Your task to perform on an android device: What's on my calendar tomorrow? Image 0: 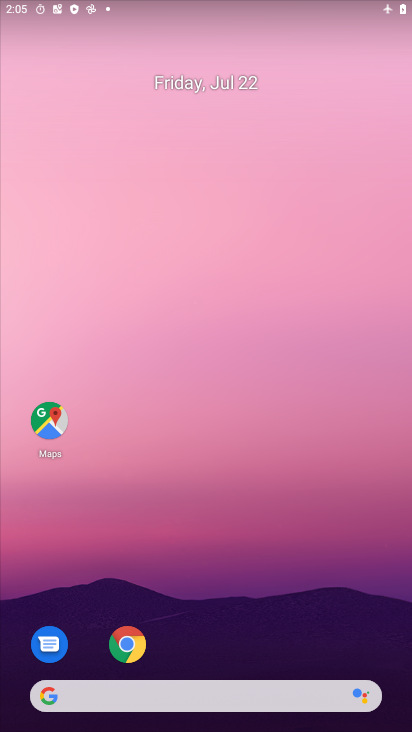
Step 0: drag from (231, 562) to (233, 165)
Your task to perform on an android device: What's on my calendar tomorrow? Image 1: 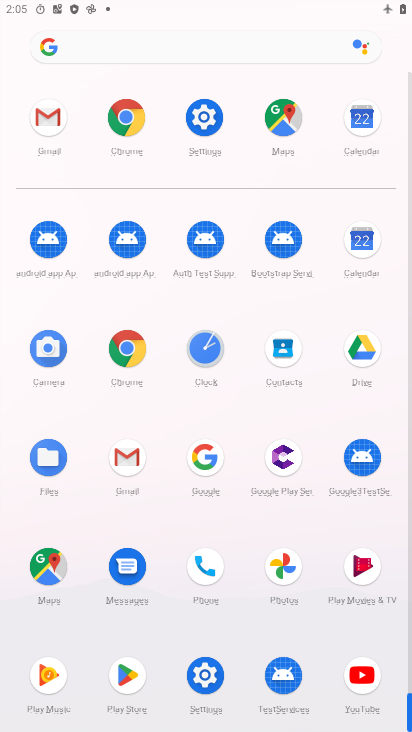
Step 1: click (363, 275)
Your task to perform on an android device: What's on my calendar tomorrow? Image 2: 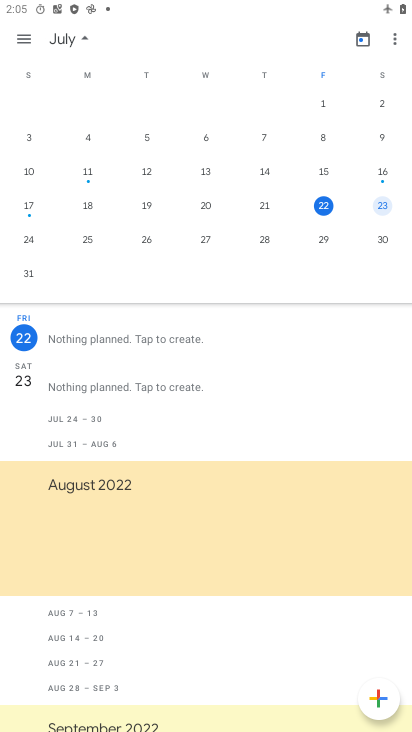
Step 2: task complete